Your task to perform on an android device: check storage Image 0: 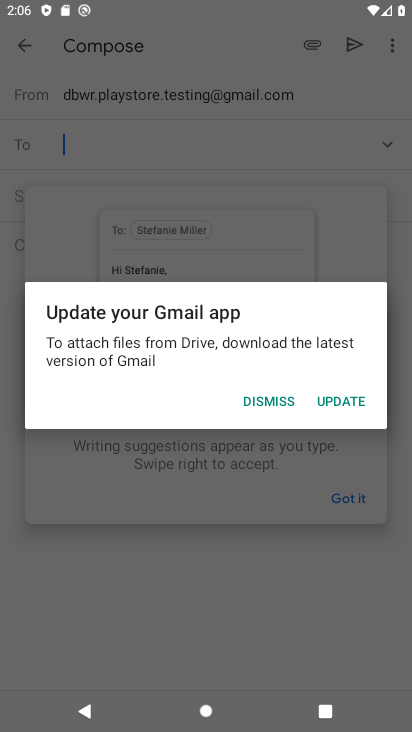
Step 0: press home button
Your task to perform on an android device: check storage Image 1: 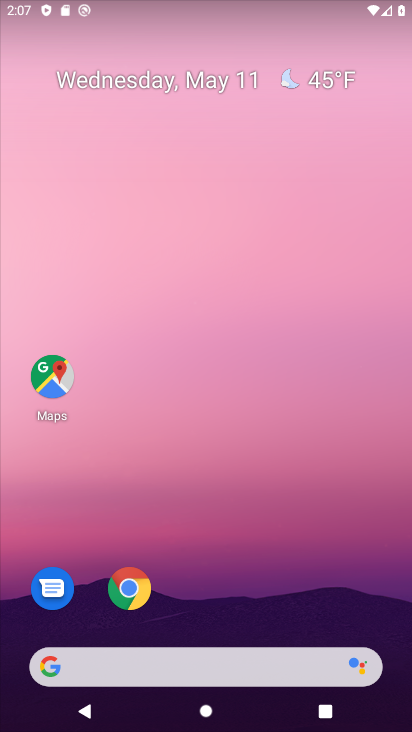
Step 1: drag from (208, 621) to (271, 127)
Your task to perform on an android device: check storage Image 2: 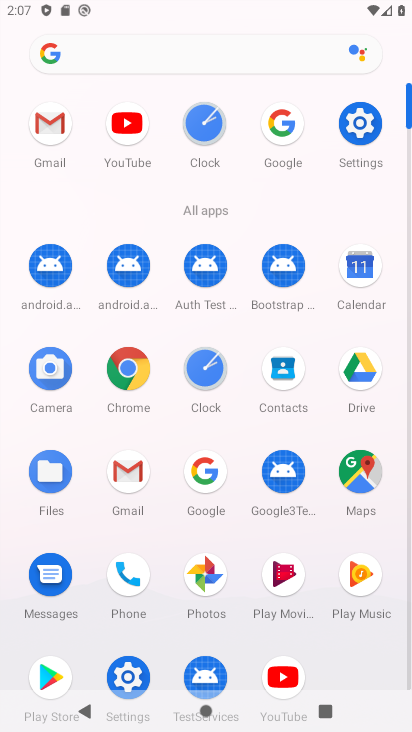
Step 2: click (357, 128)
Your task to perform on an android device: check storage Image 3: 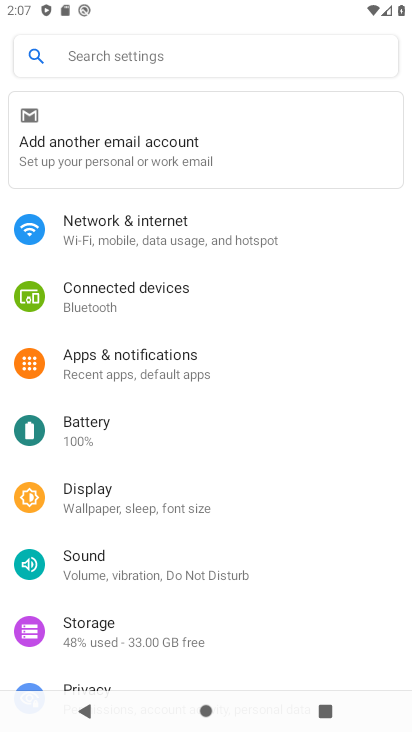
Step 3: click (152, 640)
Your task to perform on an android device: check storage Image 4: 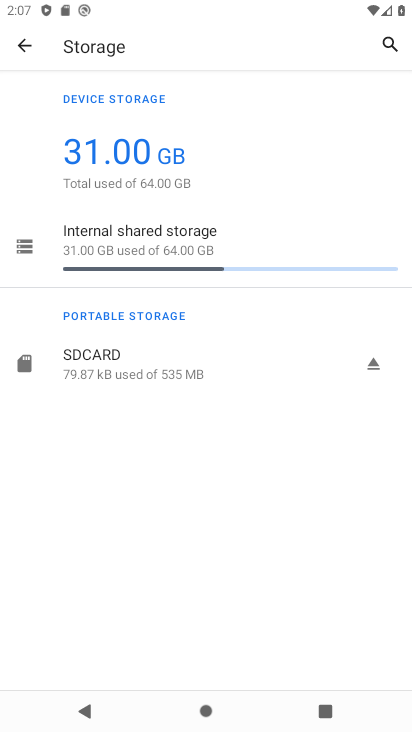
Step 4: task complete